Your task to perform on an android device: set an alarm Image 0: 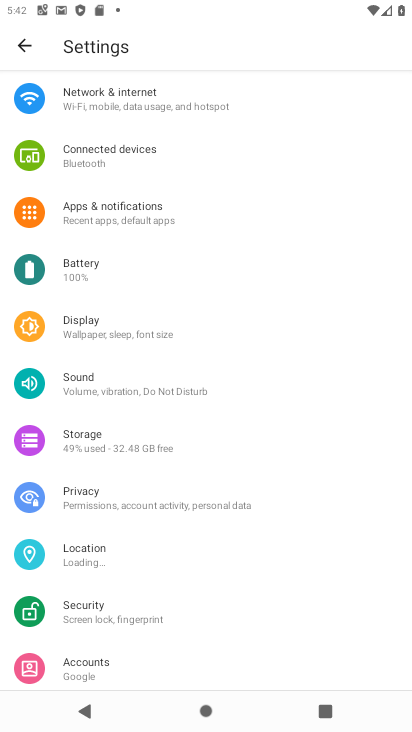
Step 0: press home button
Your task to perform on an android device: set an alarm Image 1: 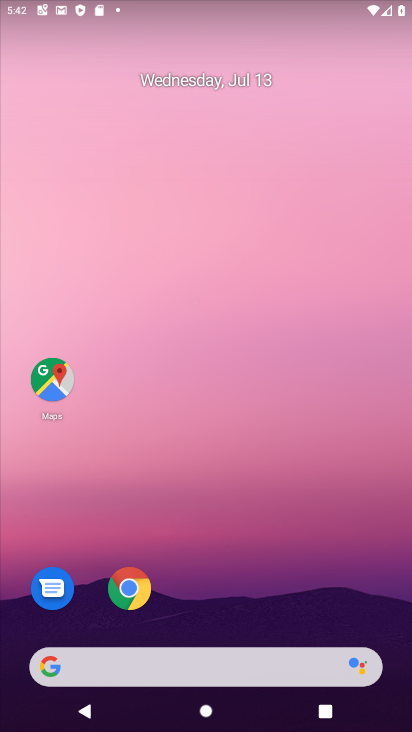
Step 1: drag from (189, 575) to (189, 104)
Your task to perform on an android device: set an alarm Image 2: 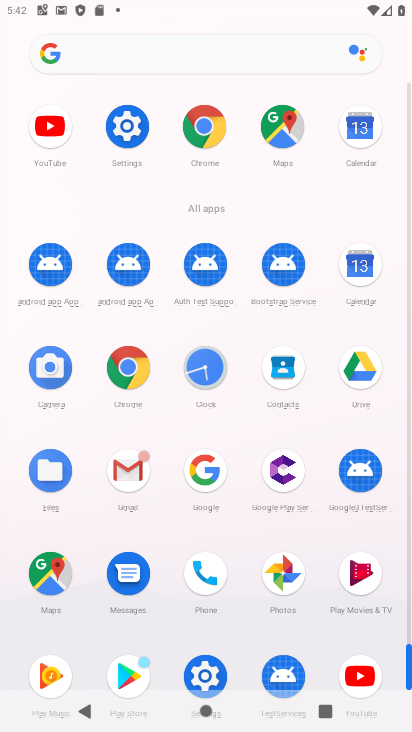
Step 2: click (211, 362)
Your task to perform on an android device: set an alarm Image 3: 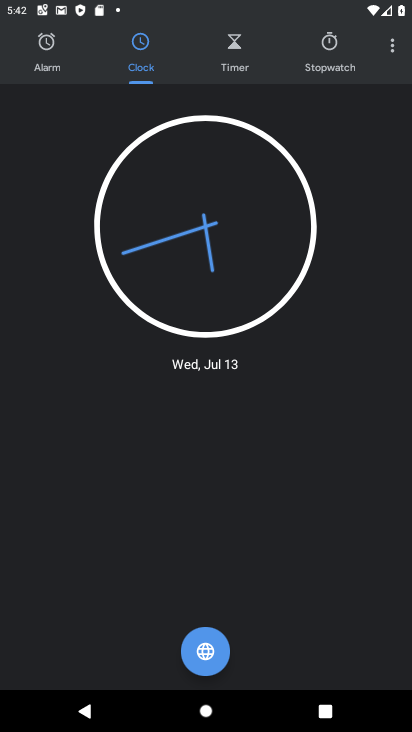
Step 3: click (392, 48)
Your task to perform on an android device: set an alarm Image 4: 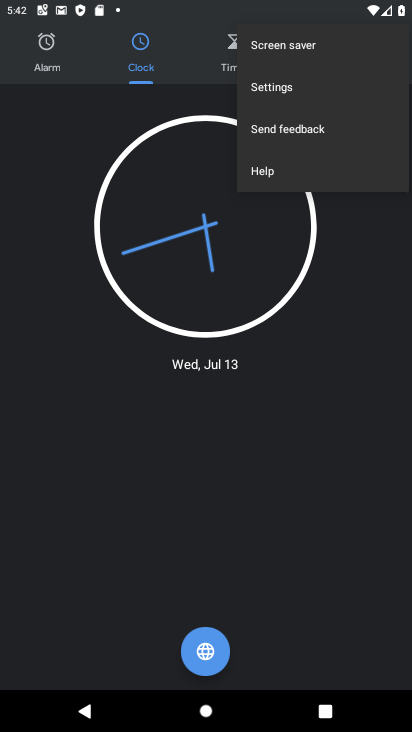
Step 4: click (43, 67)
Your task to perform on an android device: set an alarm Image 5: 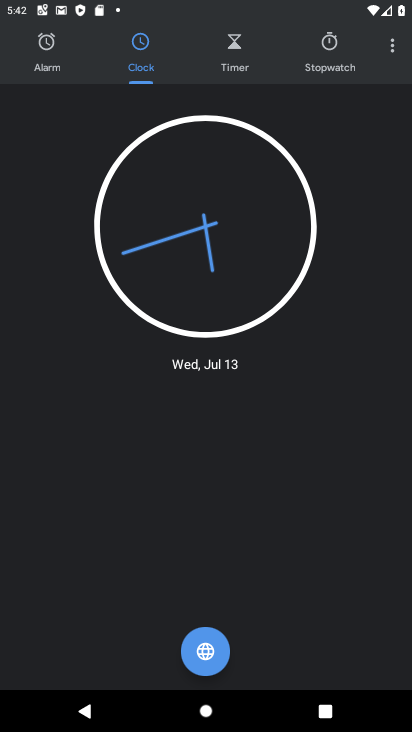
Step 5: click (43, 67)
Your task to perform on an android device: set an alarm Image 6: 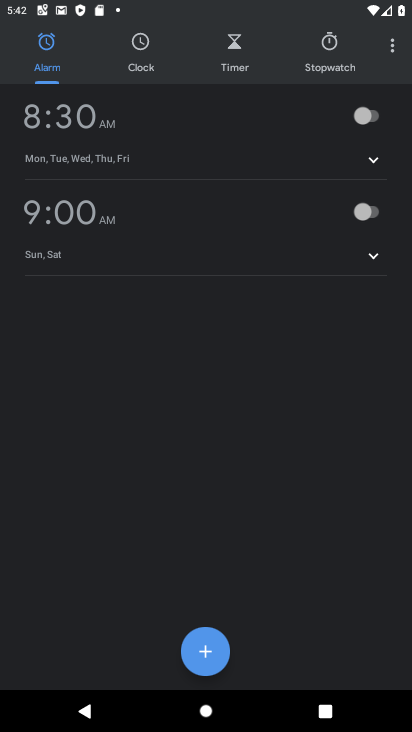
Step 6: click (369, 116)
Your task to perform on an android device: set an alarm Image 7: 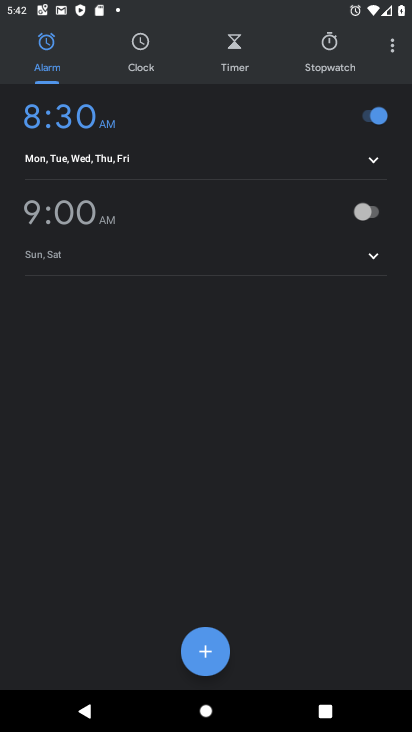
Step 7: task complete